Your task to perform on an android device: Go to notification settings Image 0: 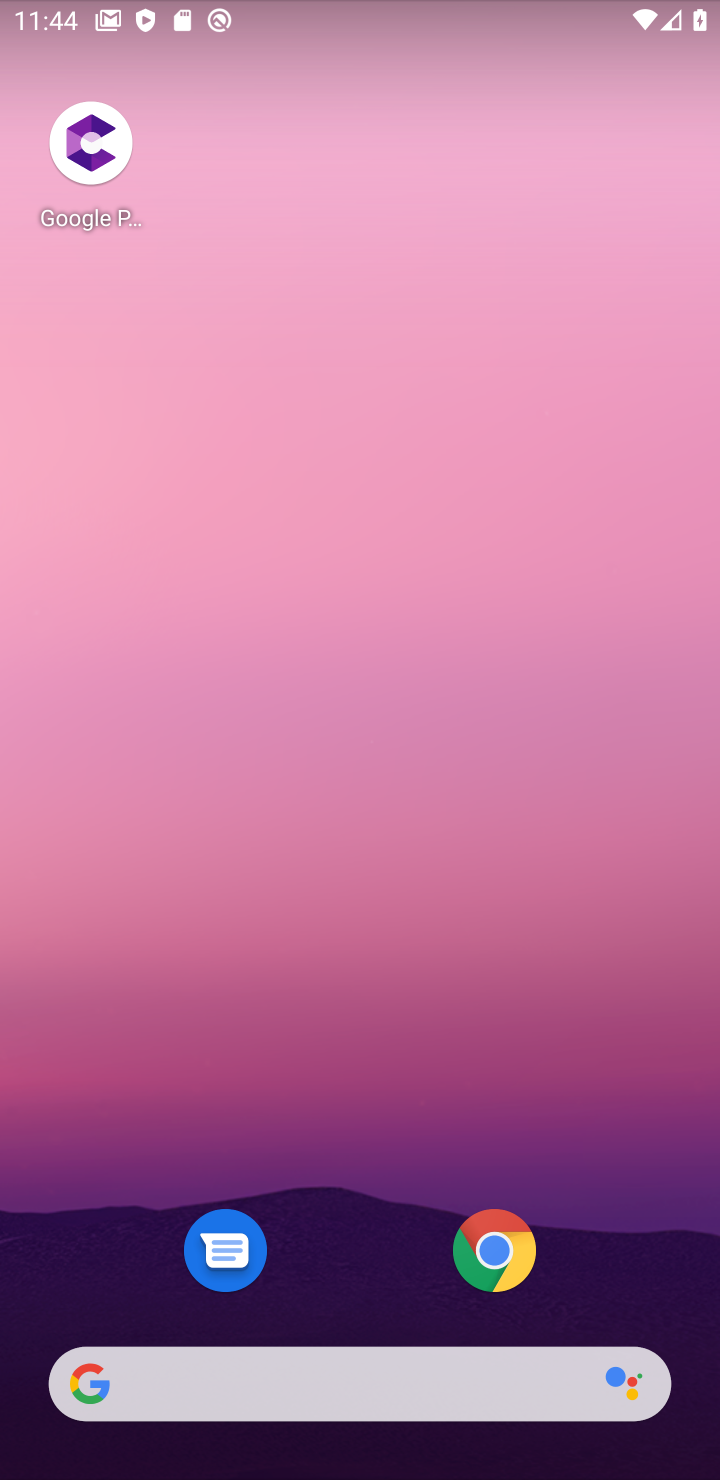
Step 0: drag from (430, 1084) to (493, 46)
Your task to perform on an android device: Go to notification settings Image 1: 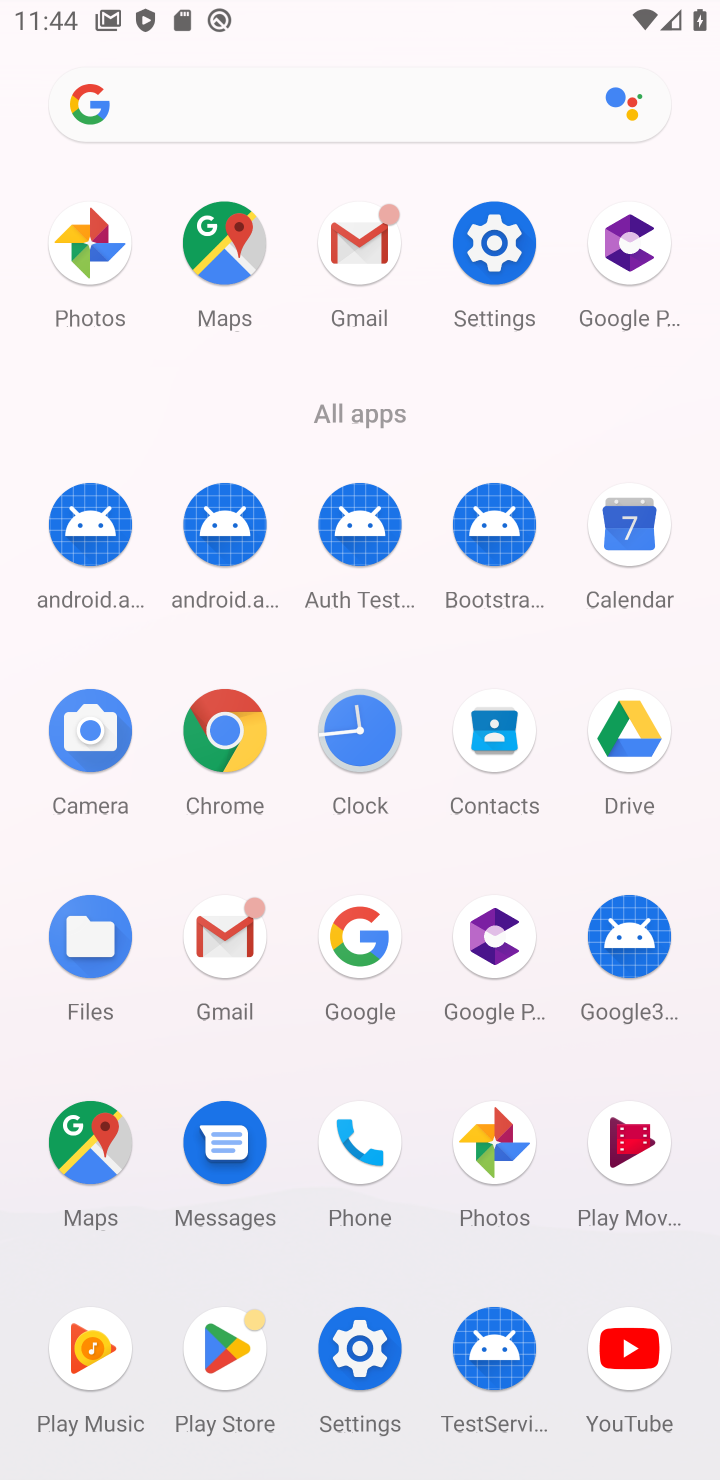
Step 1: click (494, 264)
Your task to perform on an android device: Go to notification settings Image 2: 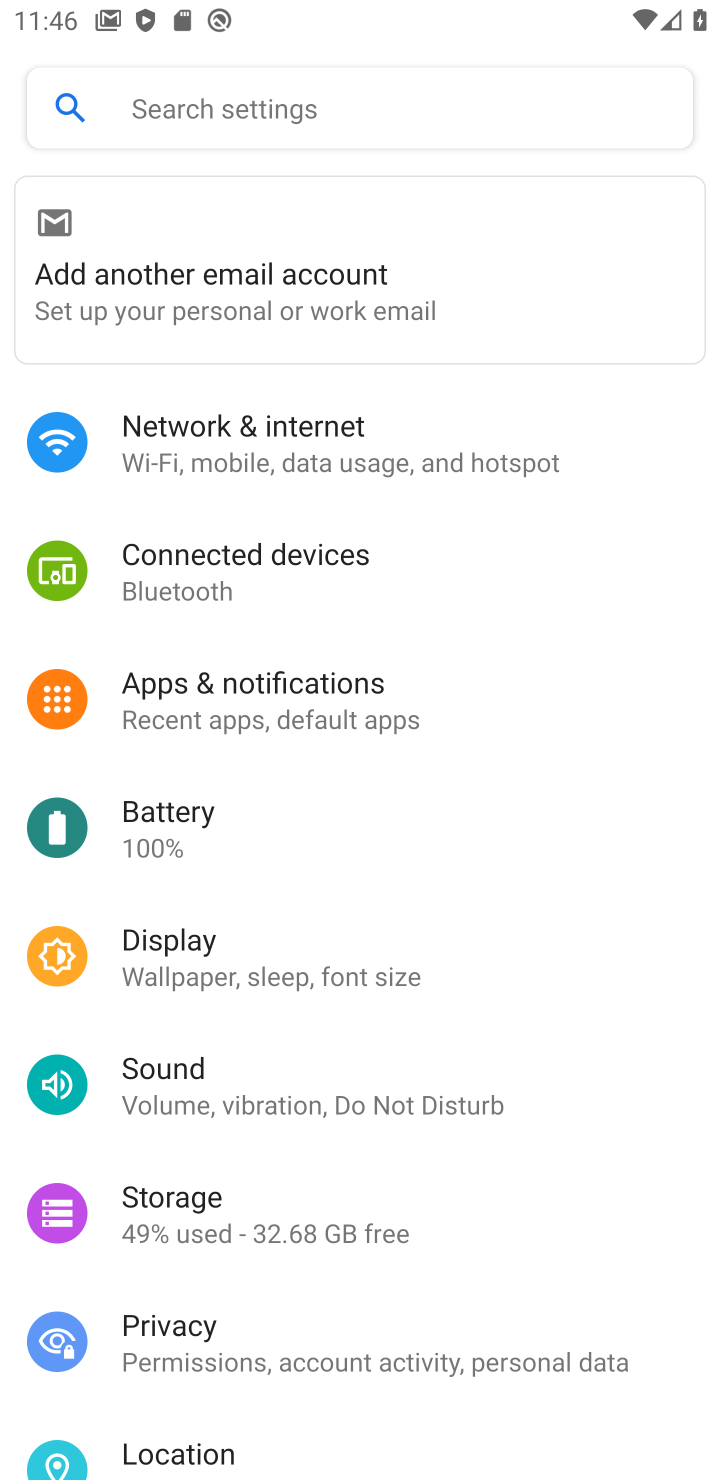
Step 2: click (294, 731)
Your task to perform on an android device: Go to notification settings Image 3: 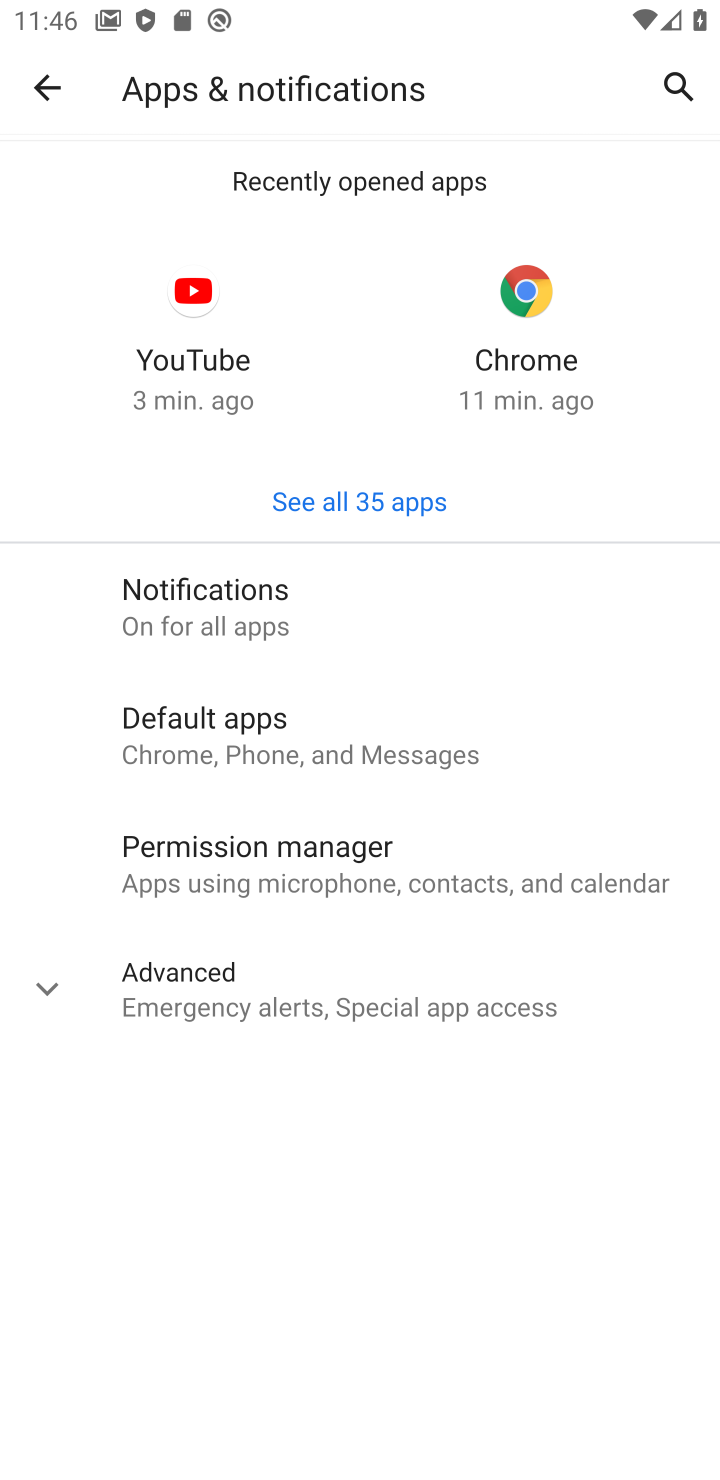
Step 3: task complete